Your task to perform on an android device: change notifications settings Image 0: 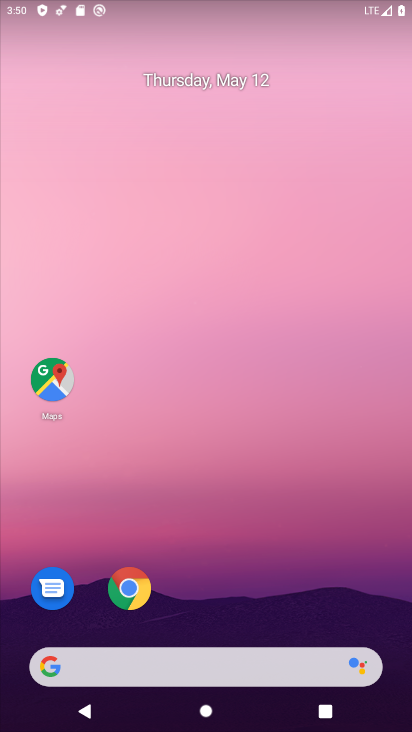
Step 0: drag from (236, 641) to (178, 208)
Your task to perform on an android device: change notifications settings Image 1: 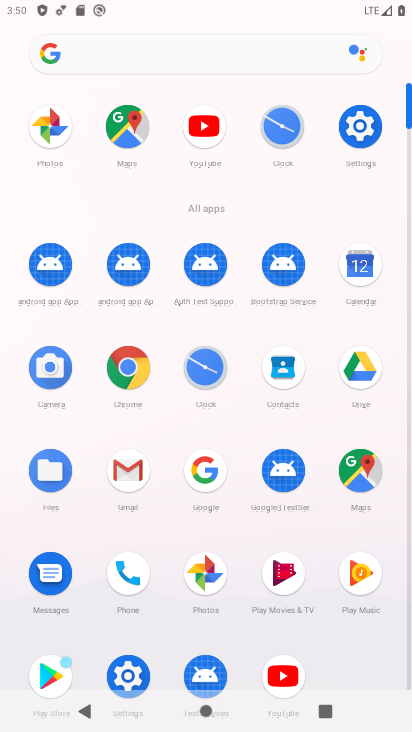
Step 1: click (361, 114)
Your task to perform on an android device: change notifications settings Image 2: 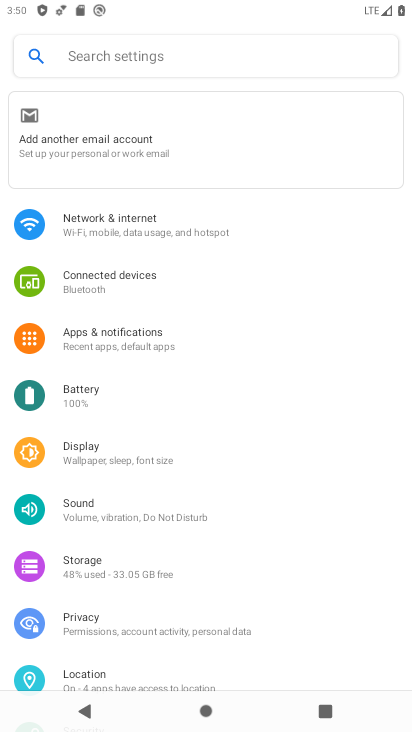
Step 2: drag from (196, 527) to (212, 223)
Your task to perform on an android device: change notifications settings Image 3: 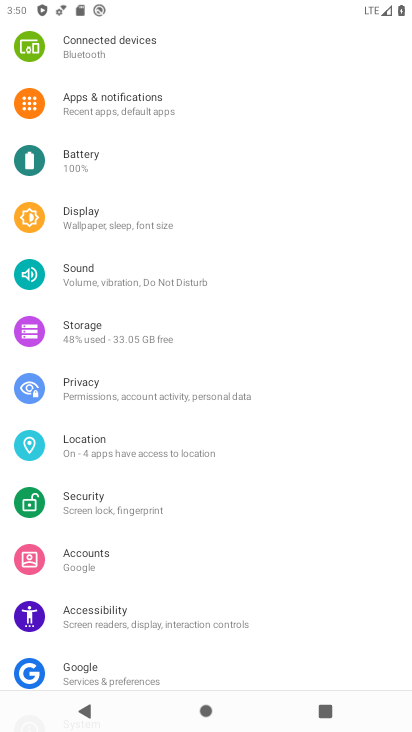
Step 3: click (177, 112)
Your task to perform on an android device: change notifications settings Image 4: 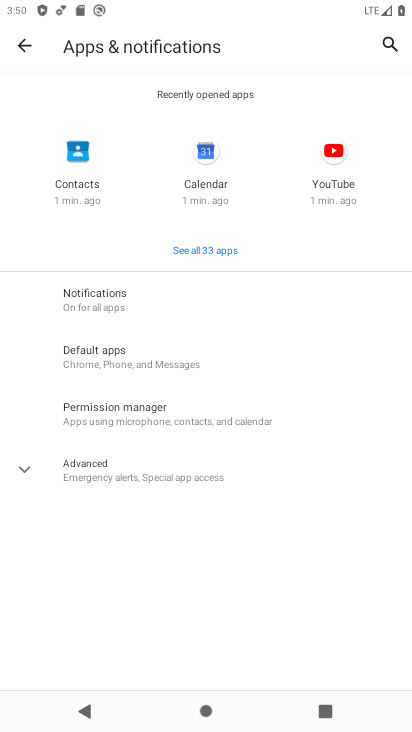
Step 4: click (121, 304)
Your task to perform on an android device: change notifications settings Image 5: 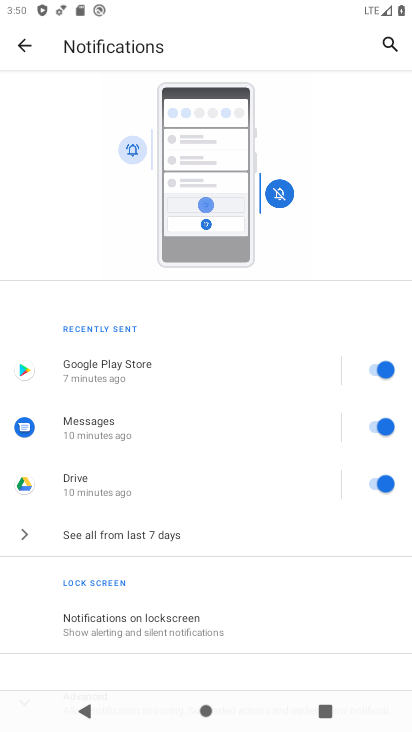
Step 5: click (370, 468)
Your task to perform on an android device: change notifications settings Image 6: 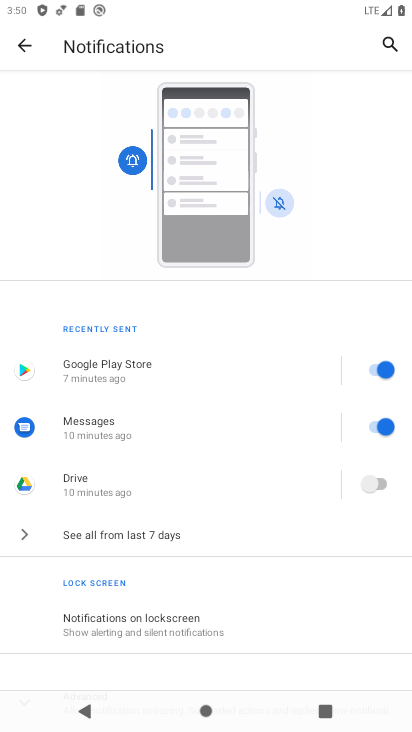
Step 6: task complete